Your task to perform on an android device: Open the map Image 0: 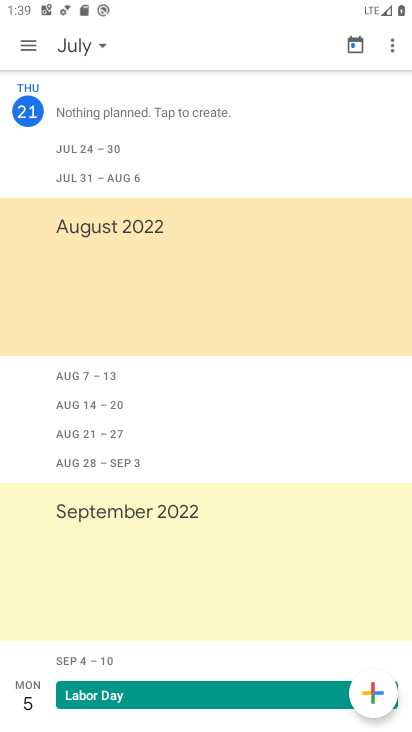
Step 0: press home button
Your task to perform on an android device: Open the map Image 1: 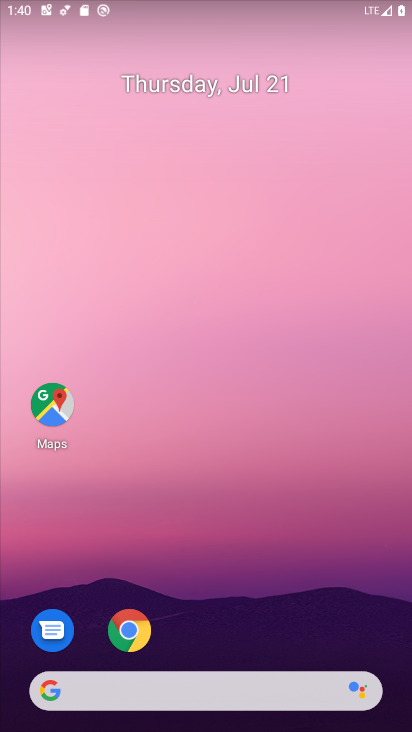
Step 1: drag from (350, 594) to (322, 102)
Your task to perform on an android device: Open the map Image 2: 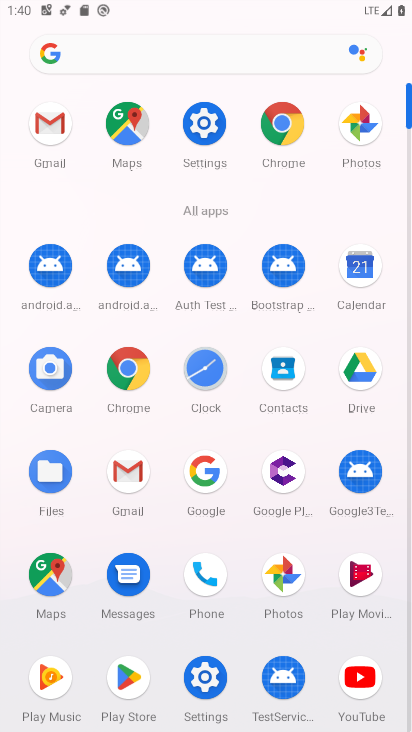
Step 2: click (136, 158)
Your task to perform on an android device: Open the map Image 3: 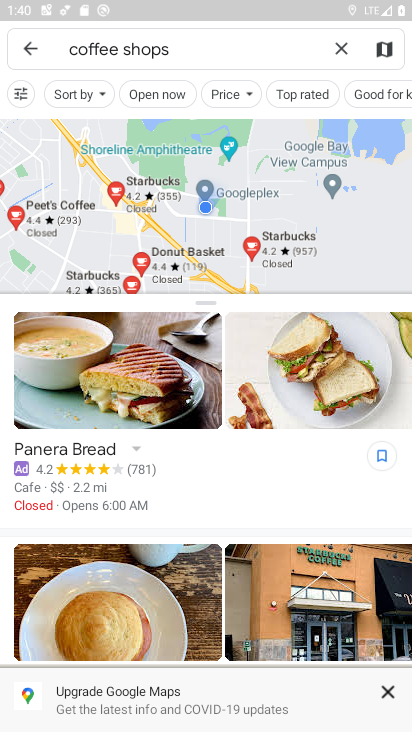
Step 3: task complete